Your task to perform on an android device: turn off translation in the chrome app Image 0: 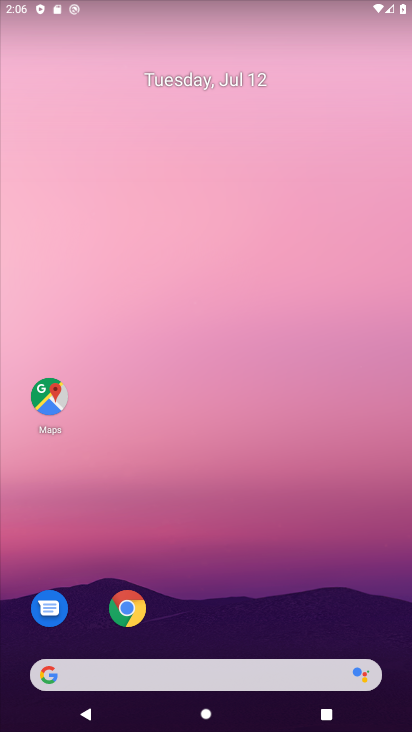
Step 0: click (117, 625)
Your task to perform on an android device: turn off translation in the chrome app Image 1: 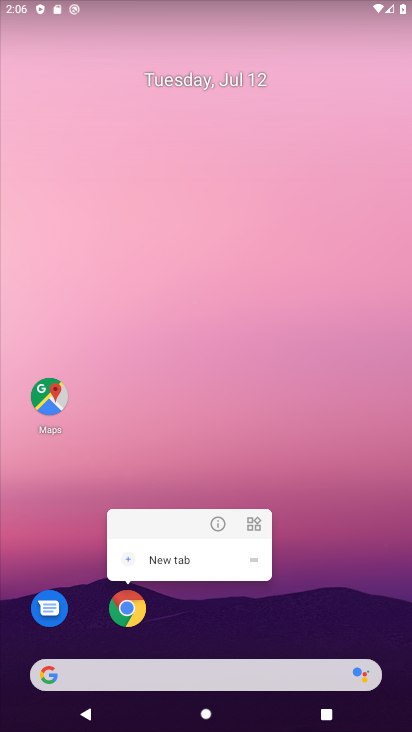
Step 1: click (129, 610)
Your task to perform on an android device: turn off translation in the chrome app Image 2: 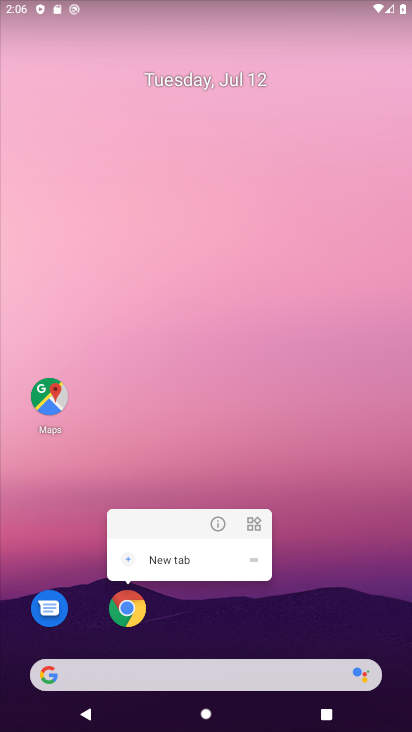
Step 2: click (135, 603)
Your task to perform on an android device: turn off translation in the chrome app Image 3: 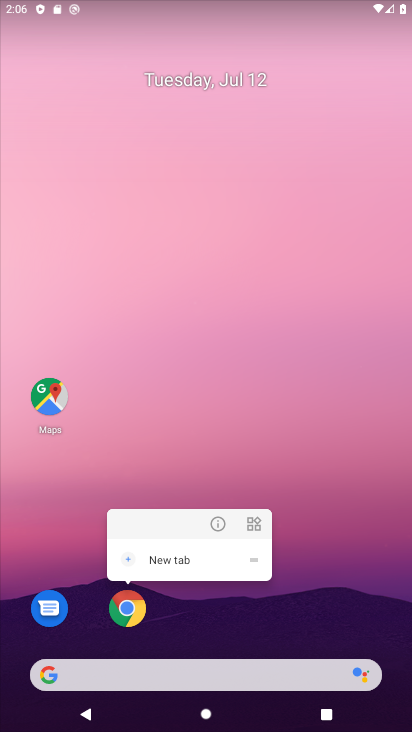
Step 3: click (133, 606)
Your task to perform on an android device: turn off translation in the chrome app Image 4: 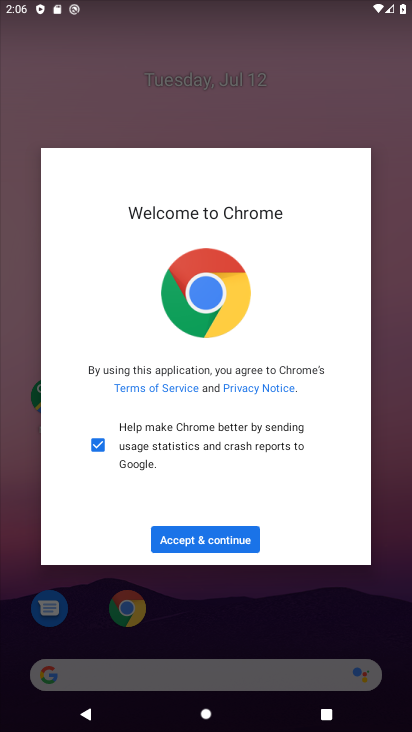
Step 4: click (215, 536)
Your task to perform on an android device: turn off translation in the chrome app Image 5: 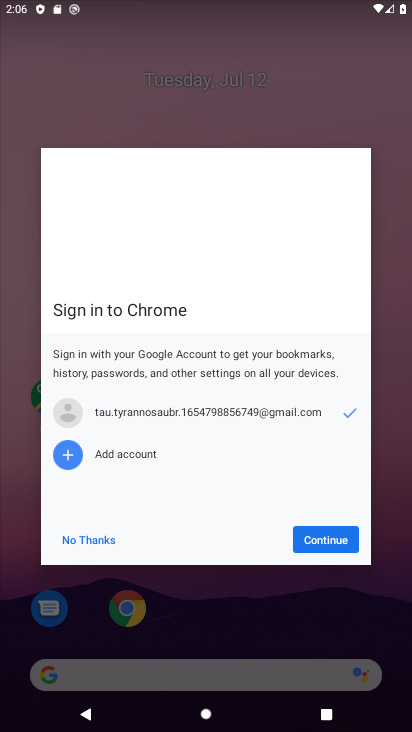
Step 5: click (326, 543)
Your task to perform on an android device: turn off translation in the chrome app Image 6: 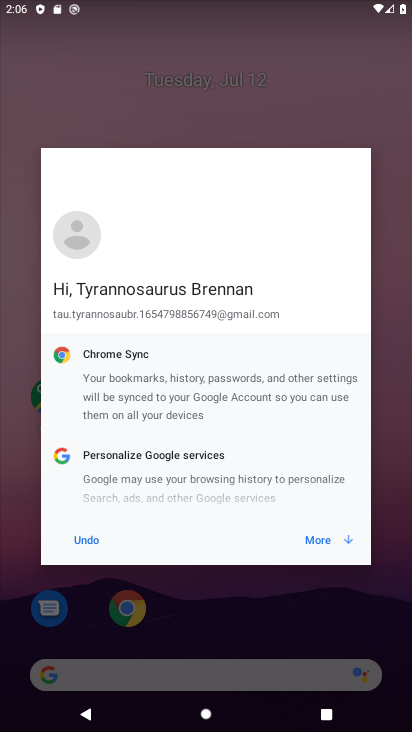
Step 6: click (337, 542)
Your task to perform on an android device: turn off translation in the chrome app Image 7: 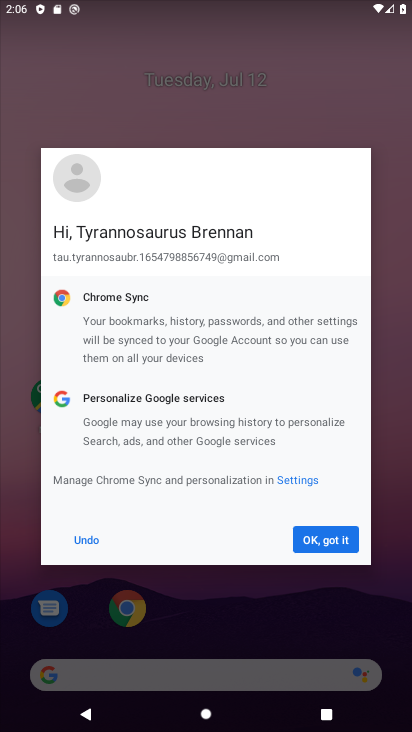
Step 7: click (322, 541)
Your task to perform on an android device: turn off translation in the chrome app Image 8: 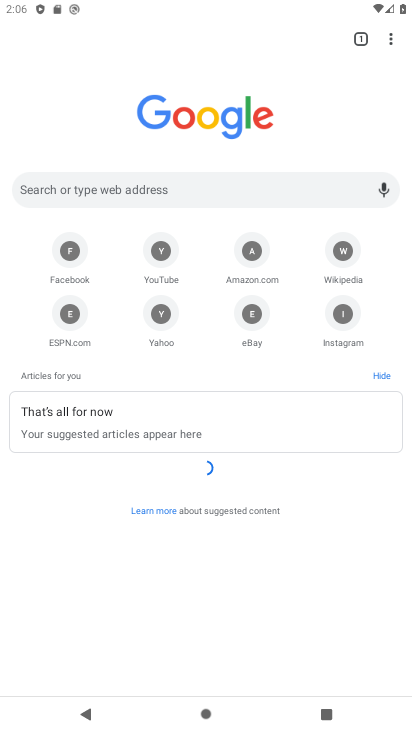
Step 8: drag from (388, 37) to (272, 326)
Your task to perform on an android device: turn off translation in the chrome app Image 9: 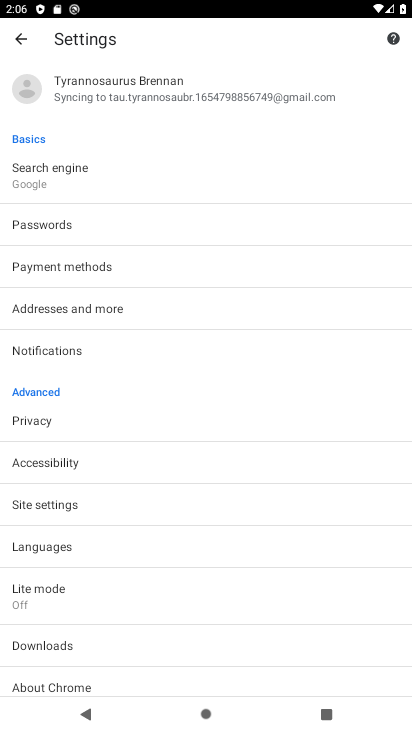
Step 9: click (79, 548)
Your task to perform on an android device: turn off translation in the chrome app Image 10: 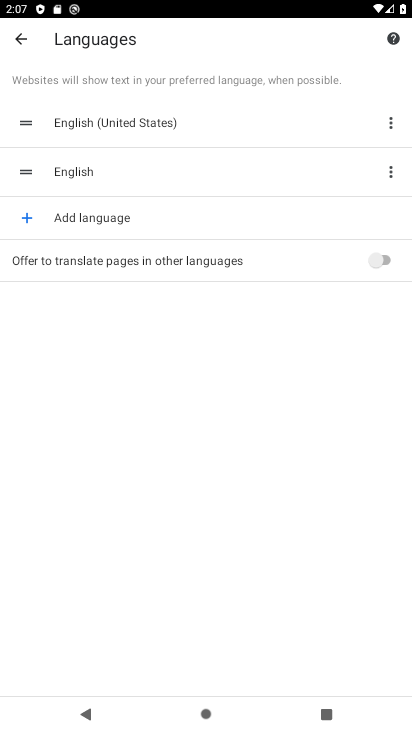
Step 10: task complete